Your task to perform on an android device: move a message to another label in the gmail app Image 0: 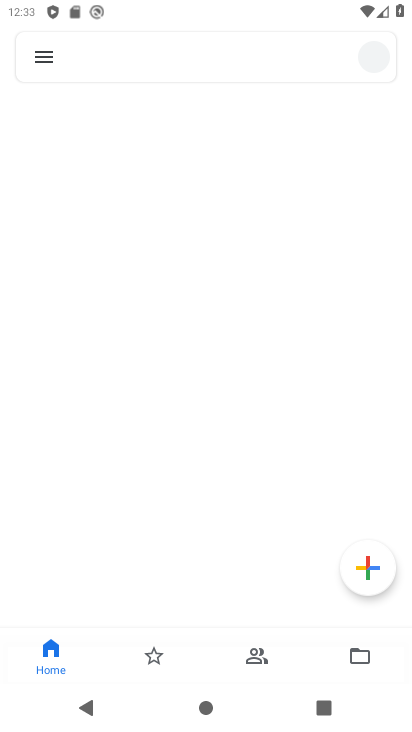
Step 0: drag from (254, 729) to (252, 87)
Your task to perform on an android device: move a message to another label in the gmail app Image 1: 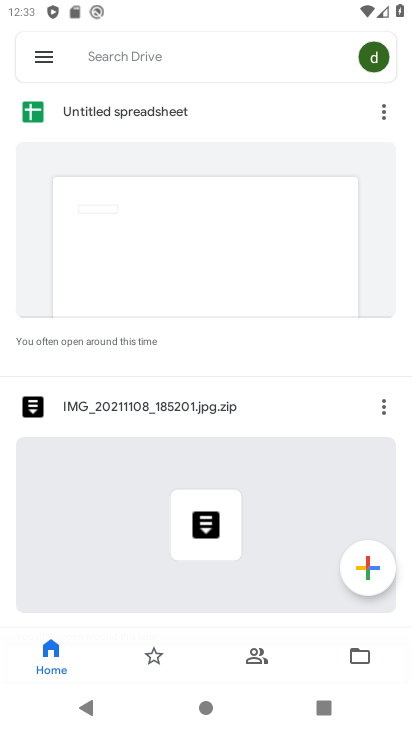
Step 1: press home button
Your task to perform on an android device: move a message to another label in the gmail app Image 2: 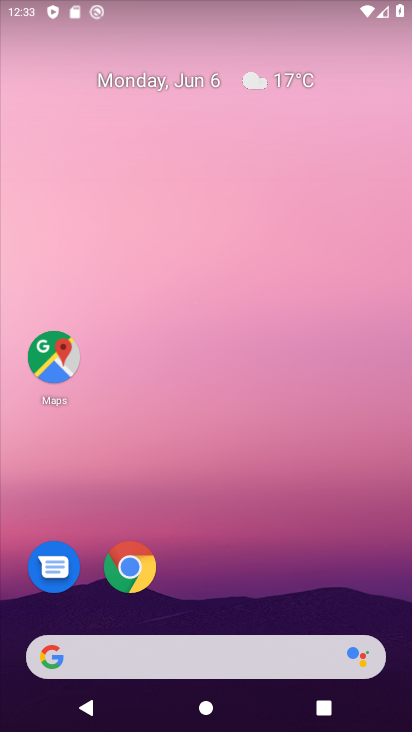
Step 2: drag from (227, 723) to (230, 174)
Your task to perform on an android device: move a message to another label in the gmail app Image 3: 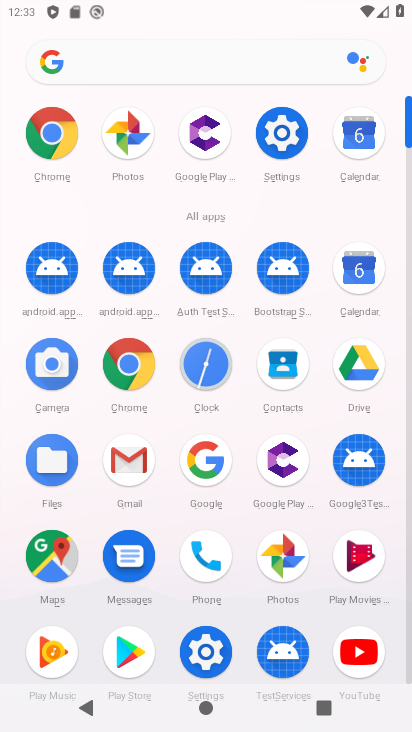
Step 3: click (135, 462)
Your task to perform on an android device: move a message to another label in the gmail app Image 4: 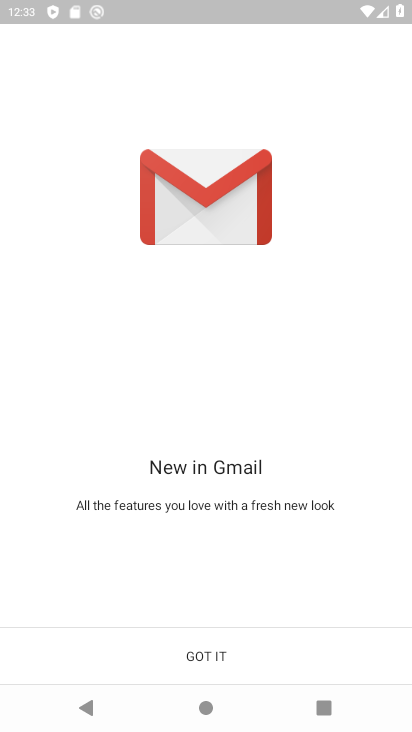
Step 4: click (205, 649)
Your task to perform on an android device: move a message to another label in the gmail app Image 5: 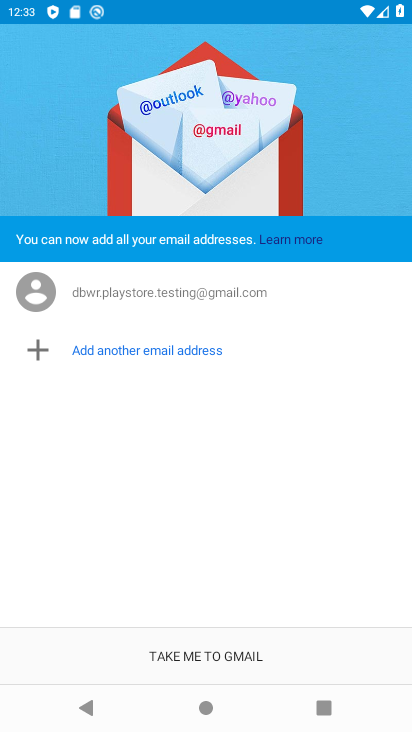
Step 5: click (205, 649)
Your task to perform on an android device: move a message to another label in the gmail app Image 6: 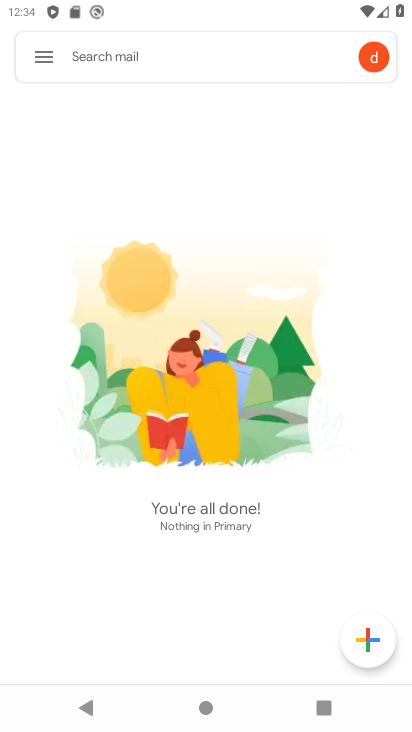
Step 6: task complete